Your task to perform on an android device: What's on my calendar today? Image 0: 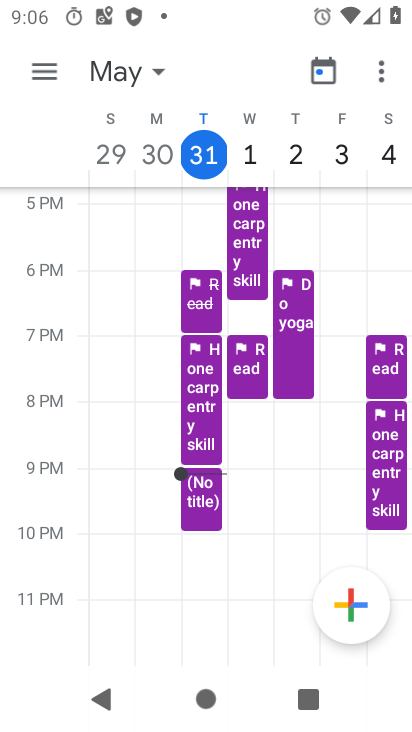
Step 0: press home button
Your task to perform on an android device: What's on my calendar today? Image 1: 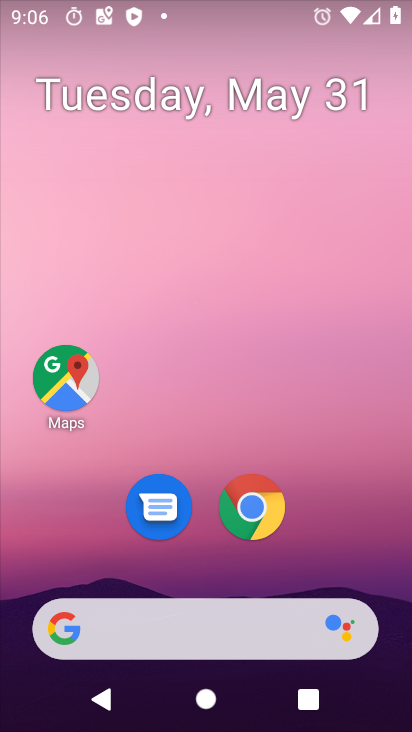
Step 1: drag from (383, 562) to (384, 2)
Your task to perform on an android device: What's on my calendar today? Image 2: 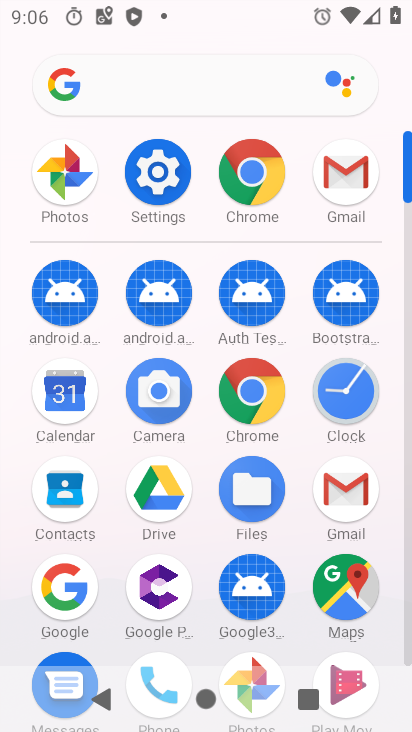
Step 2: click (64, 406)
Your task to perform on an android device: What's on my calendar today? Image 3: 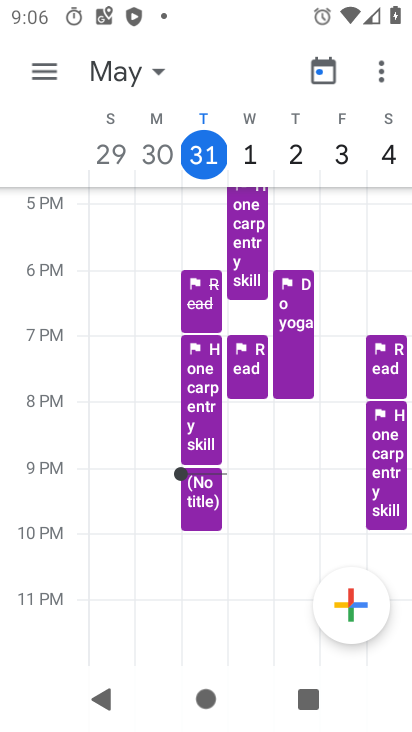
Step 3: click (50, 73)
Your task to perform on an android device: What's on my calendar today? Image 4: 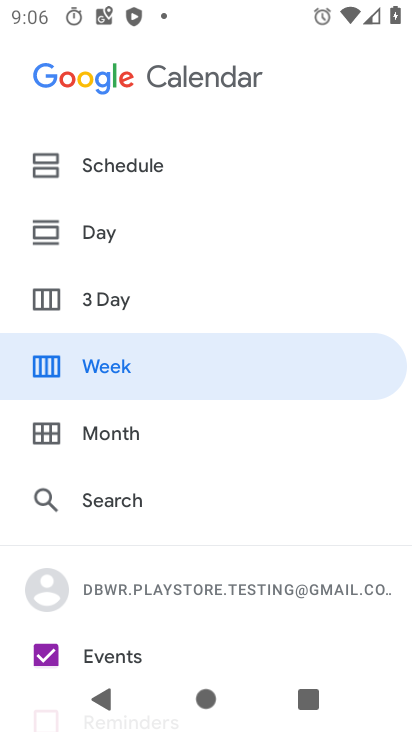
Step 4: click (76, 177)
Your task to perform on an android device: What's on my calendar today? Image 5: 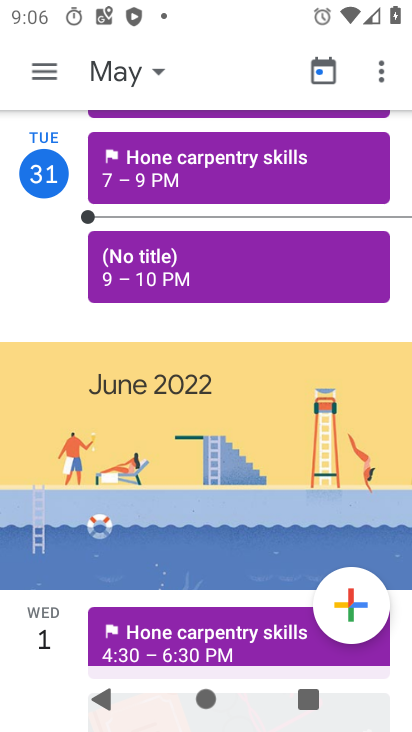
Step 5: click (26, 74)
Your task to perform on an android device: What's on my calendar today? Image 6: 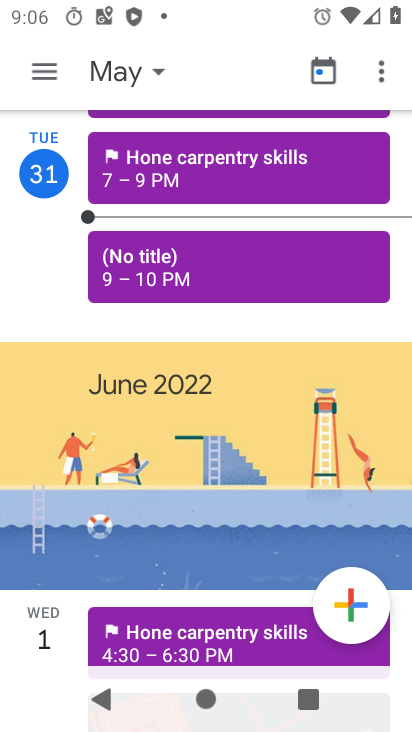
Step 6: click (44, 75)
Your task to perform on an android device: What's on my calendar today? Image 7: 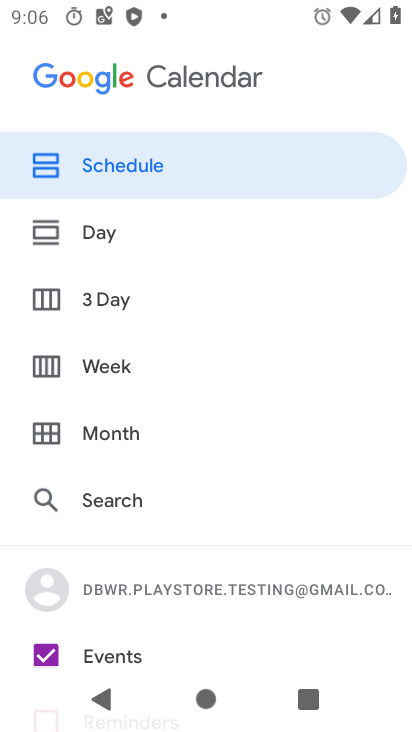
Step 7: click (75, 243)
Your task to perform on an android device: What's on my calendar today? Image 8: 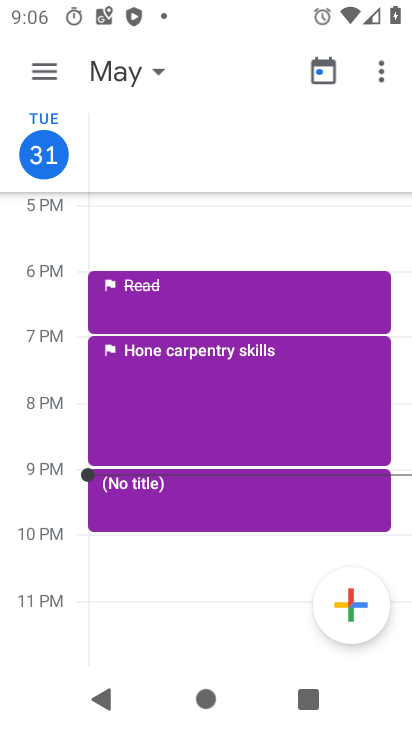
Step 8: task complete